Your task to perform on an android device: add a label to a message in the gmail app Image 0: 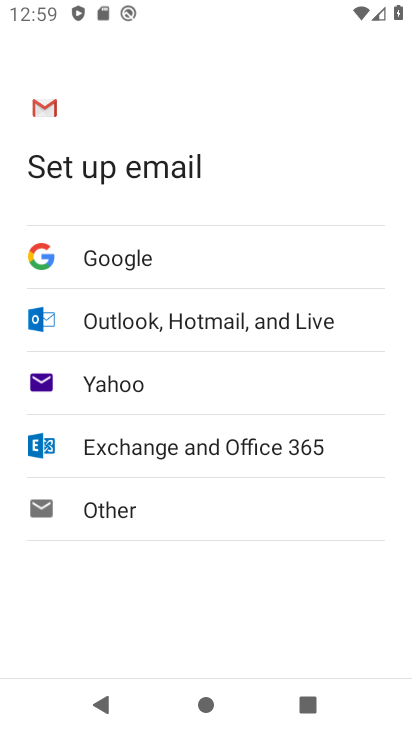
Step 0: press home button
Your task to perform on an android device: add a label to a message in the gmail app Image 1: 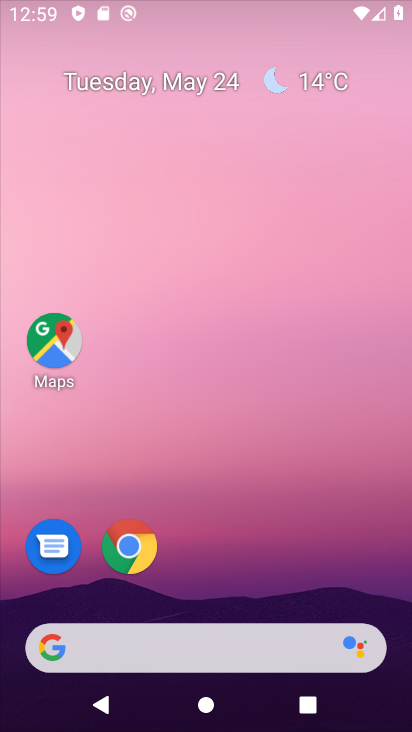
Step 1: drag from (247, 533) to (243, 15)
Your task to perform on an android device: add a label to a message in the gmail app Image 2: 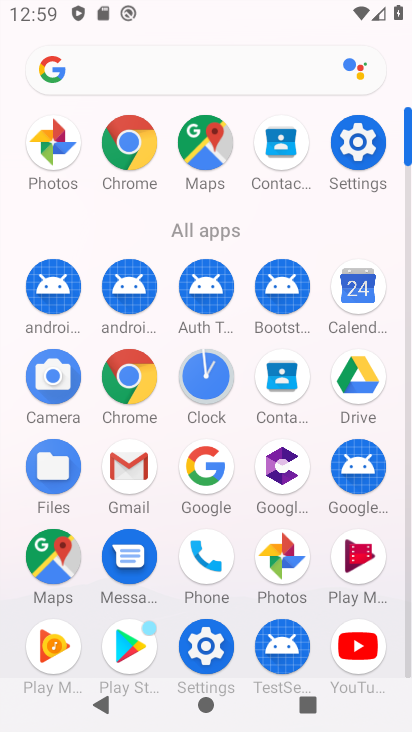
Step 2: click (124, 455)
Your task to perform on an android device: add a label to a message in the gmail app Image 3: 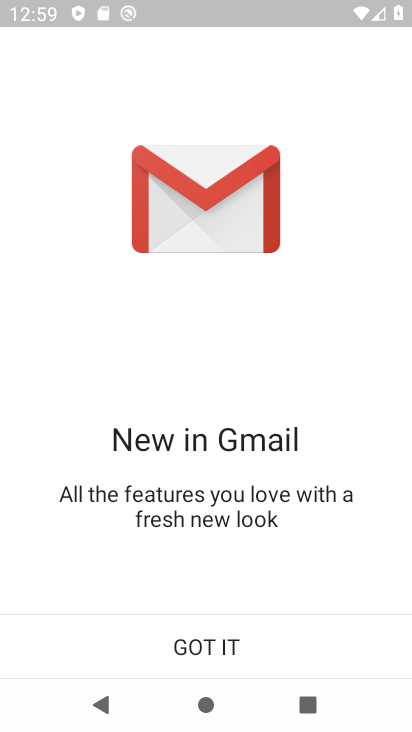
Step 3: click (189, 651)
Your task to perform on an android device: add a label to a message in the gmail app Image 4: 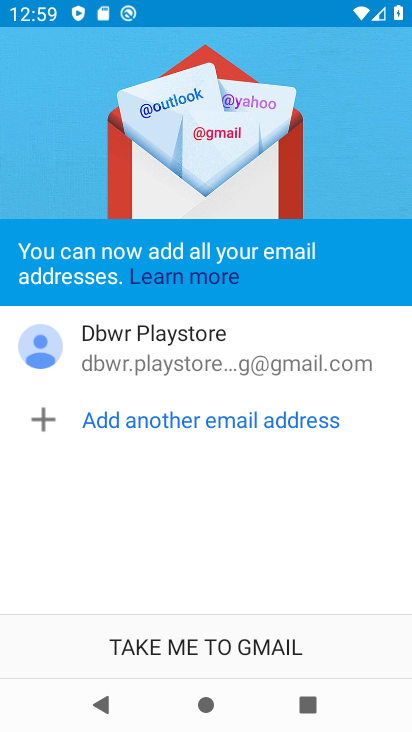
Step 4: click (189, 651)
Your task to perform on an android device: add a label to a message in the gmail app Image 5: 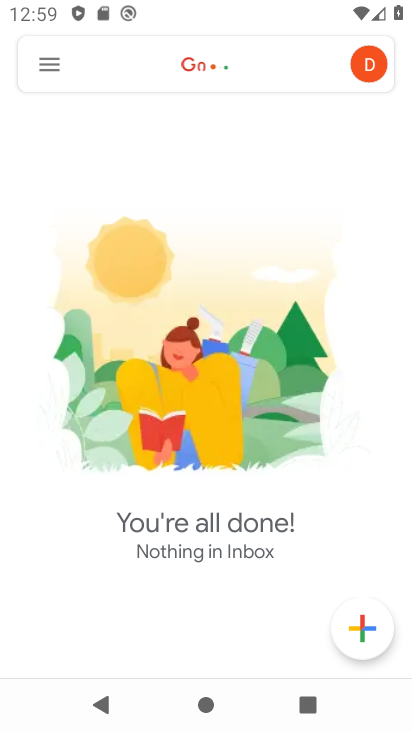
Step 5: click (59, 70)
Your task to perform on an android device: add a label to a message in the gmail app Image 6: 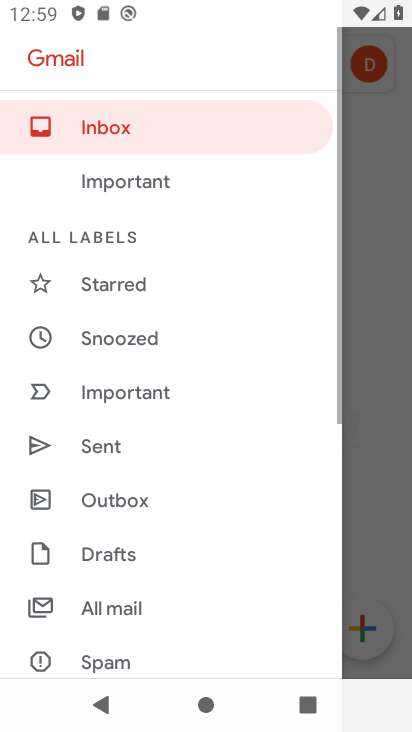
Step 6: drag from (158, 619) to (201, 383)
Your task to perform on an android device: add a label to a message in the gmail app Image 7: 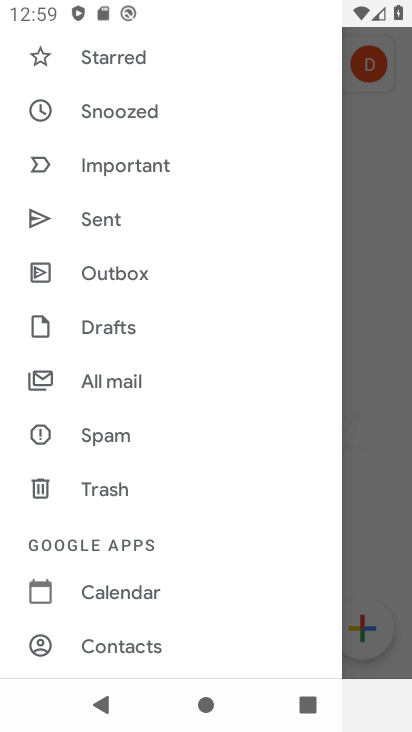
Step 7: click (138, 376)
Your task to perform on an android device: add a label to a message in the gmail app Image 8: 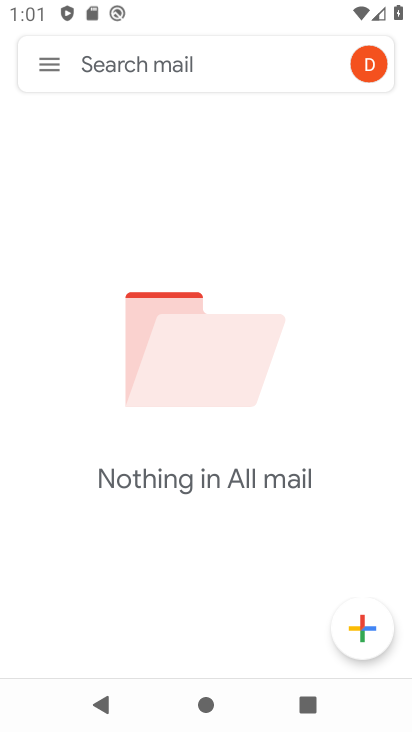
Step 8: task complete